Your task to perform on an android device: open wifi settings Image 0: 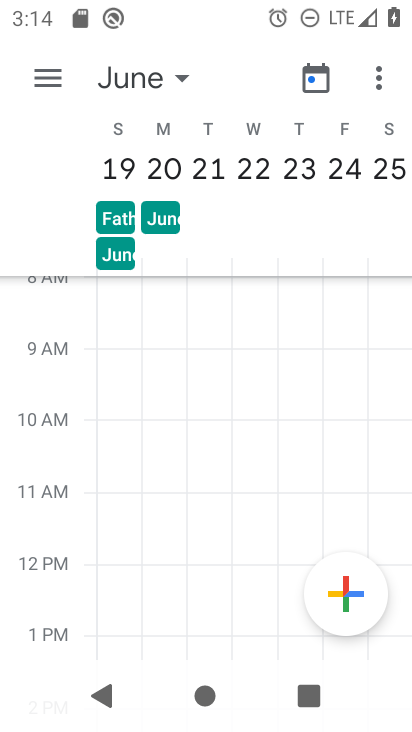
Step 0: press home button
Your task to perform on an android device: open wifi settings Image 1: 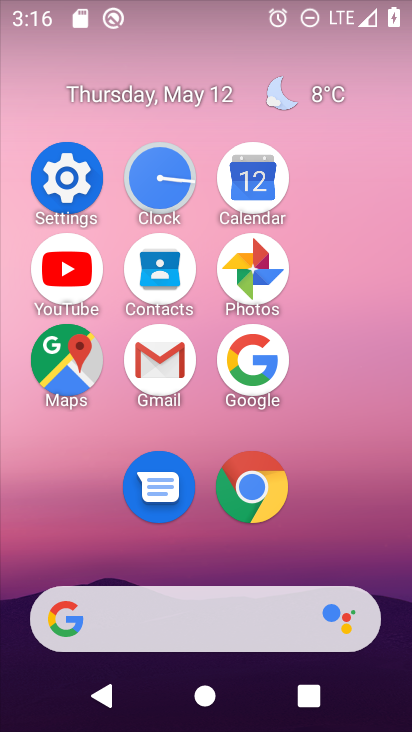
Step 1: click (67, 167)
Your task to perform on an android device: open wifi settings Image 2: 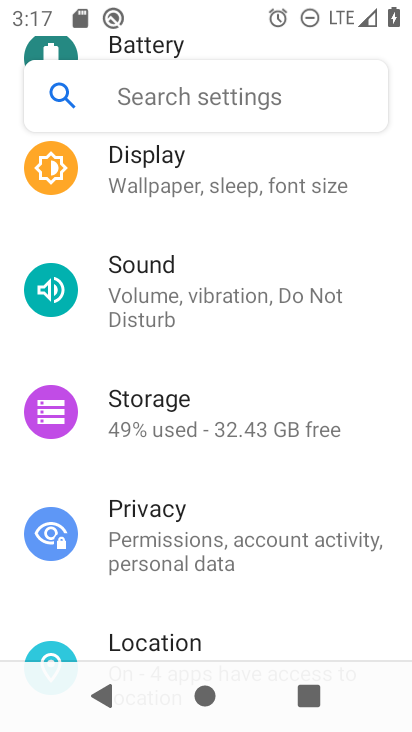
Step 2: drag from (262, 232) to (271, 608)
Your task to perform on an android device: open wifi settings Image 3: 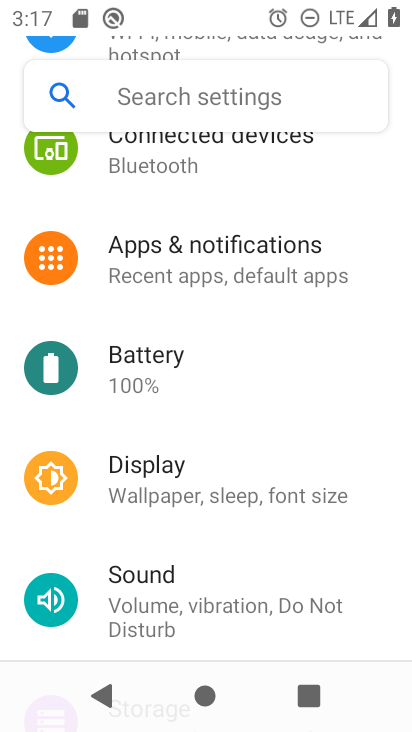
Step 3: drag from (275, 292) to (285, 578)
Your task to perform on an android device: open wifi settings Image 4: 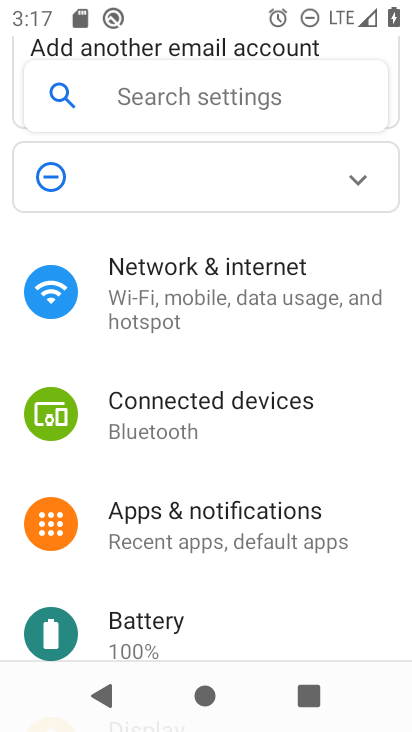
Step 4: click (224, 284)
Your task to perform on an android device: open wifi settings Image 5: 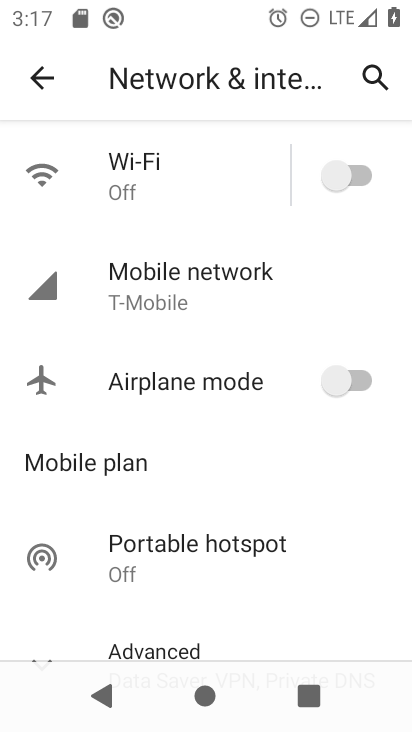
Step 5: click (322, 177)
Your task to perform on an android device: open wifi settings Image 6: 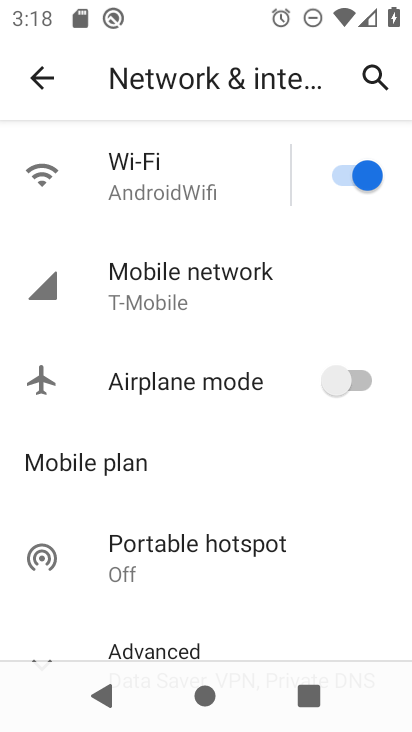
Step 6: click (154, 164)
Your task to perform on an android device: open wifi settings Image 7: 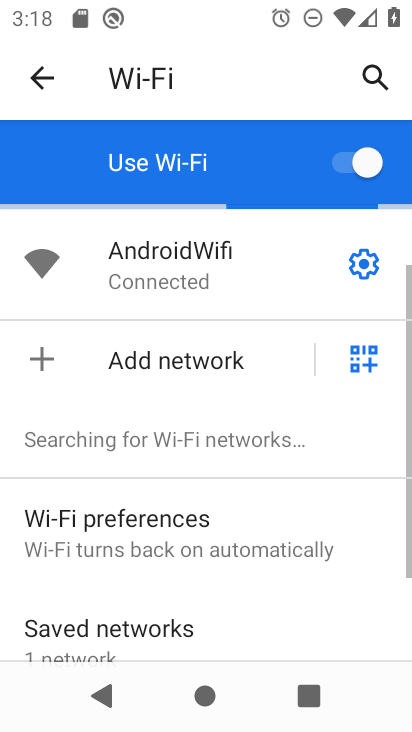
Step 7: click (360, 260)
Your task to perform on an android device: open wifi settings Image 8: 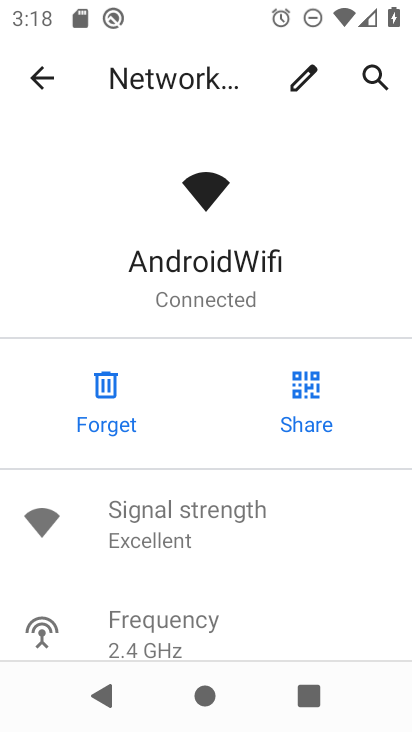
Step 8: task complete